Your task to perform on an android device: show emergency info Image 0: 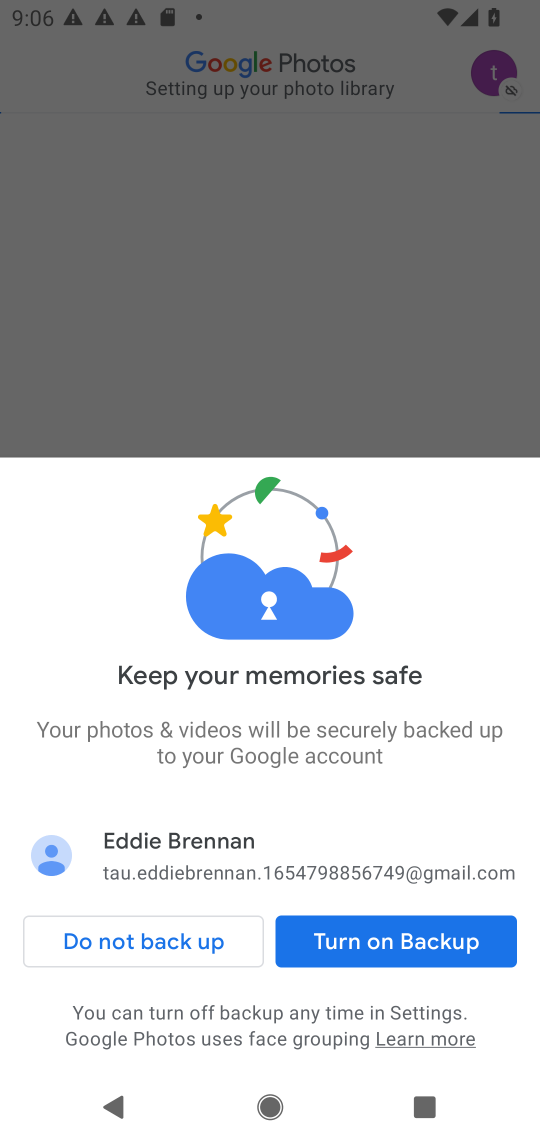
Step 0: press home button
Your task to perform on an android device: show emergency info Image 1: 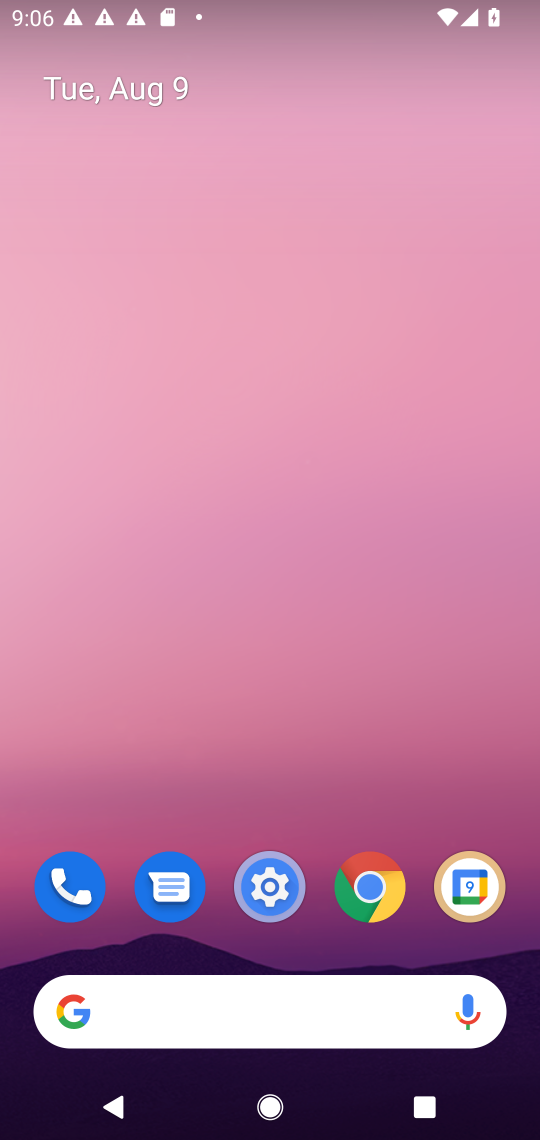
Step 1: click (253, 901)
Your task to perform on an android device: show emergency info Image 2: 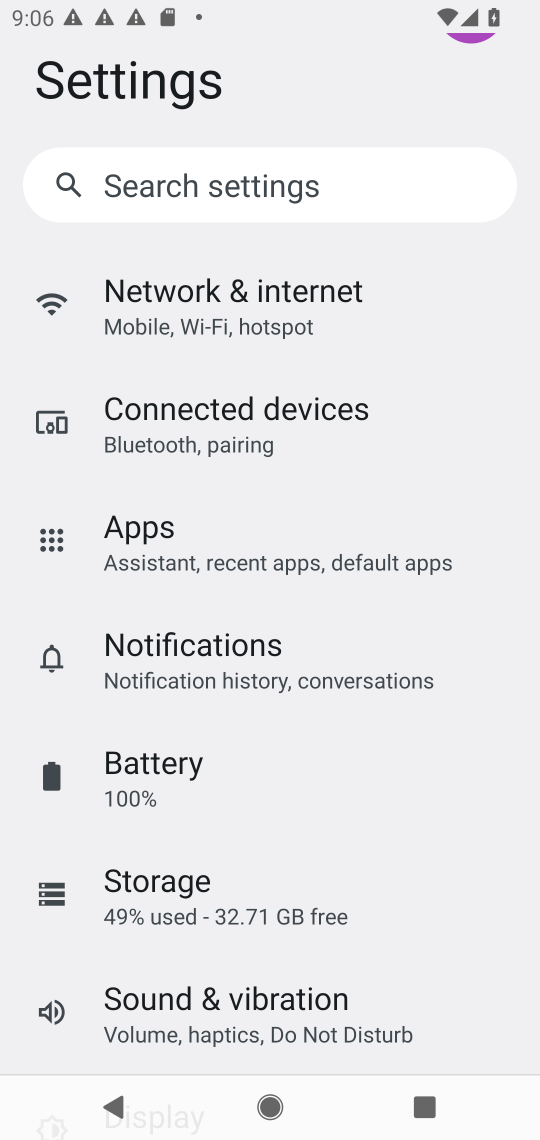
Step 2: drag from (238, 950) to (323, 385)
Your task to perform on an android device: show emergency info Image 3: 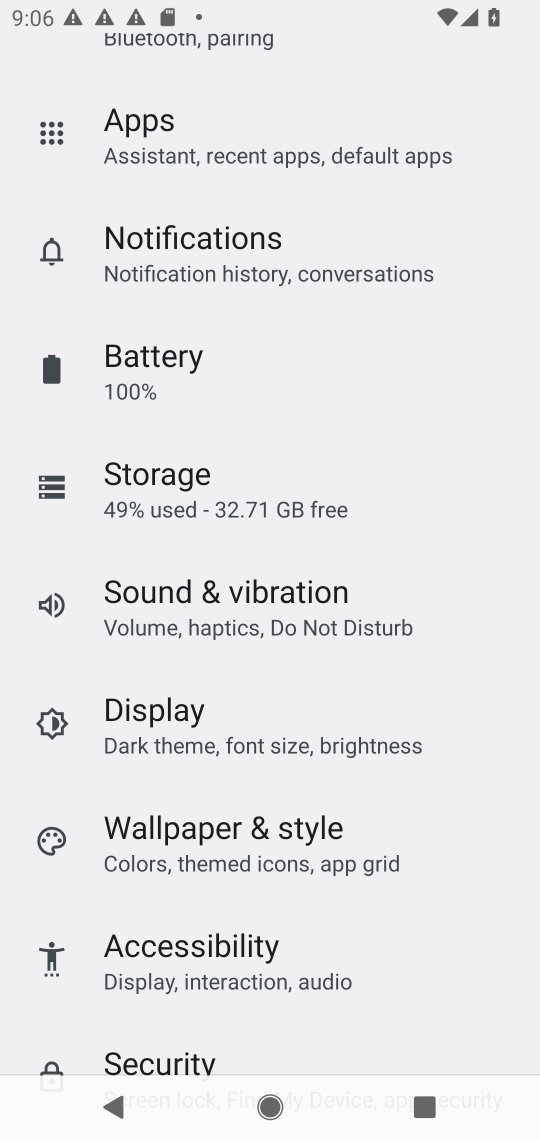
Step 3: drag from (171, 941) to (327, 372)
Your task to perform on an android device: show emergency info Image 4: 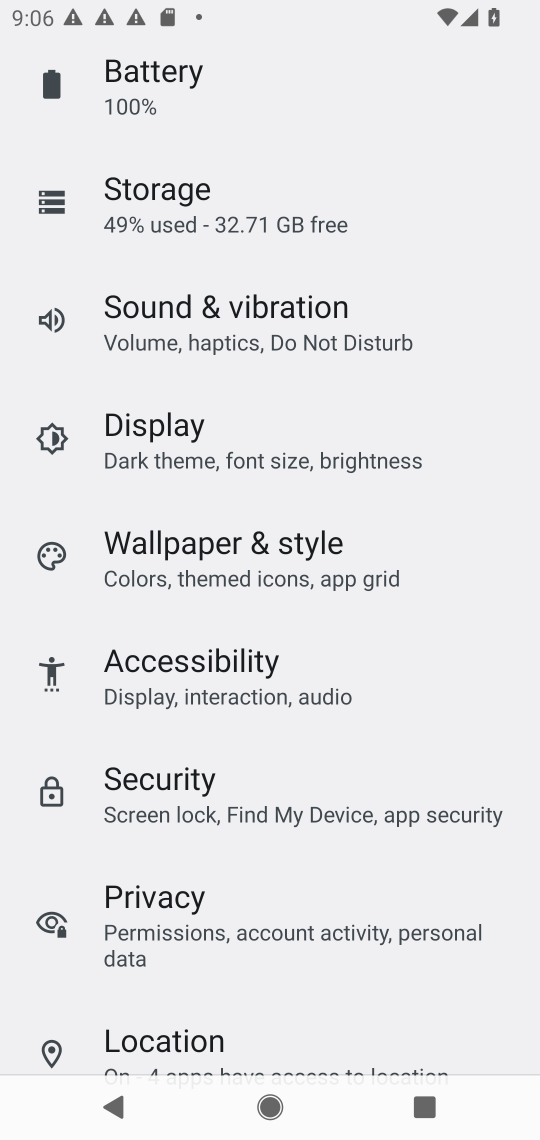
Step 4: drag from (284, 765) to (352, 265)
Your task to perform on an android device: show emergency info Image 5: 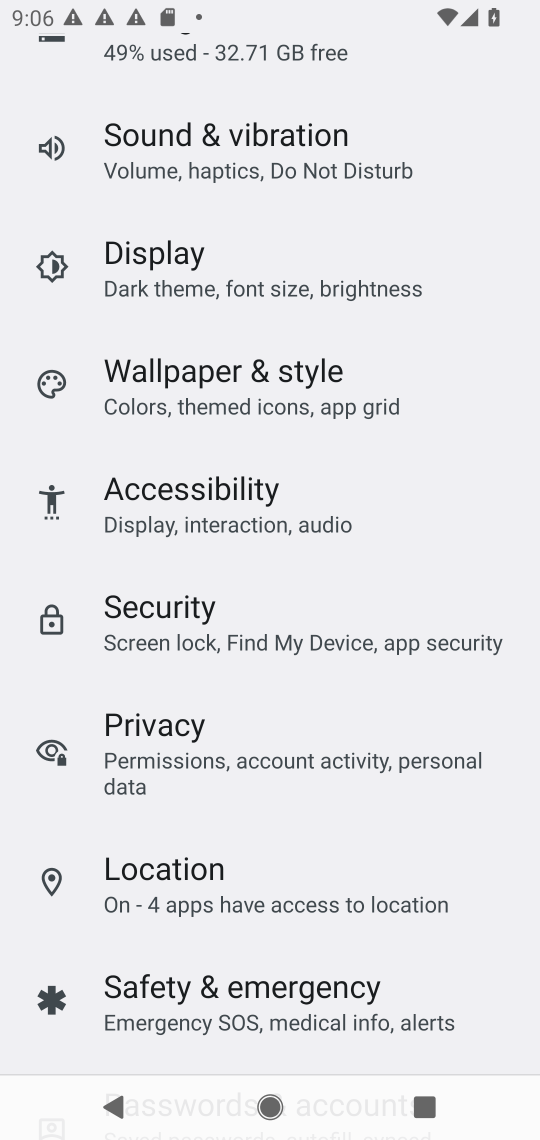
Step 5: drag from (323, 824) to (353, 295)
Your task to perform on an android device: show emergency info Image 6: 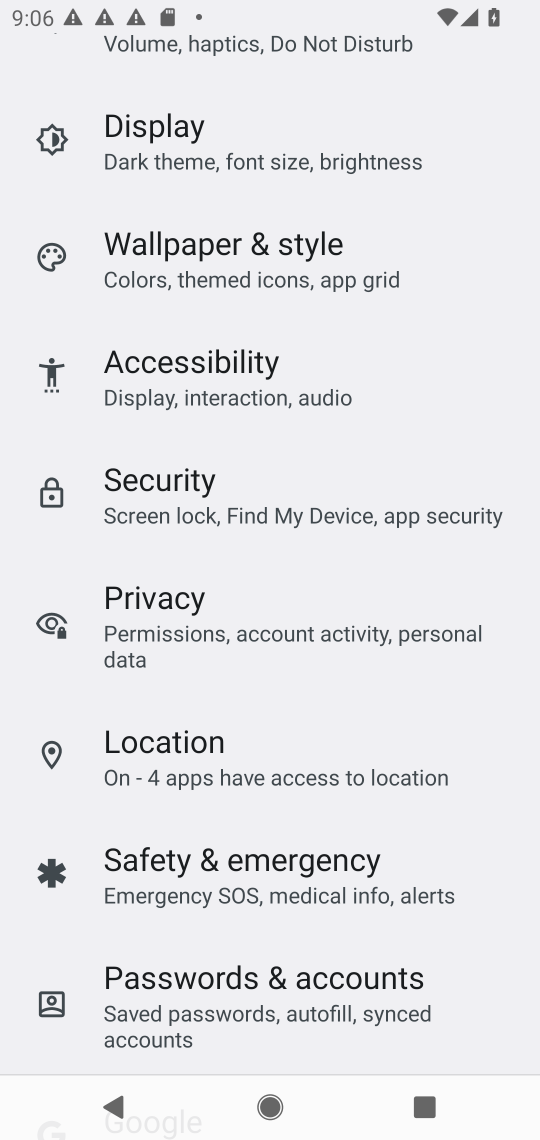
Step 6: drag from (265, 907) to (303, 361)
Your task to perform on an android device: show emergency info Image 7: 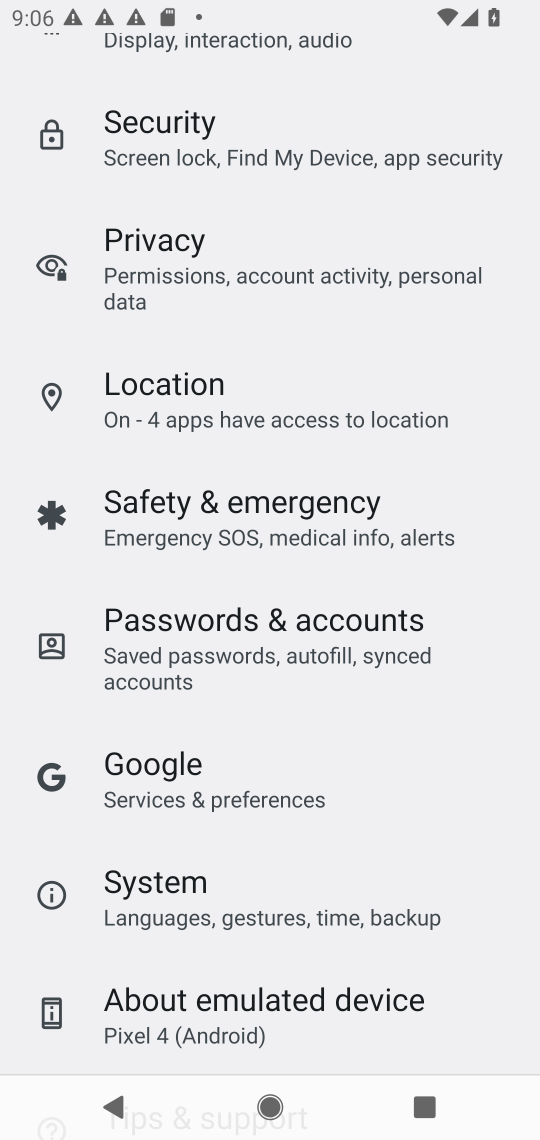
Step 7: click (270, 887)
Your task to perform on an android device: show emergency info Image 8: 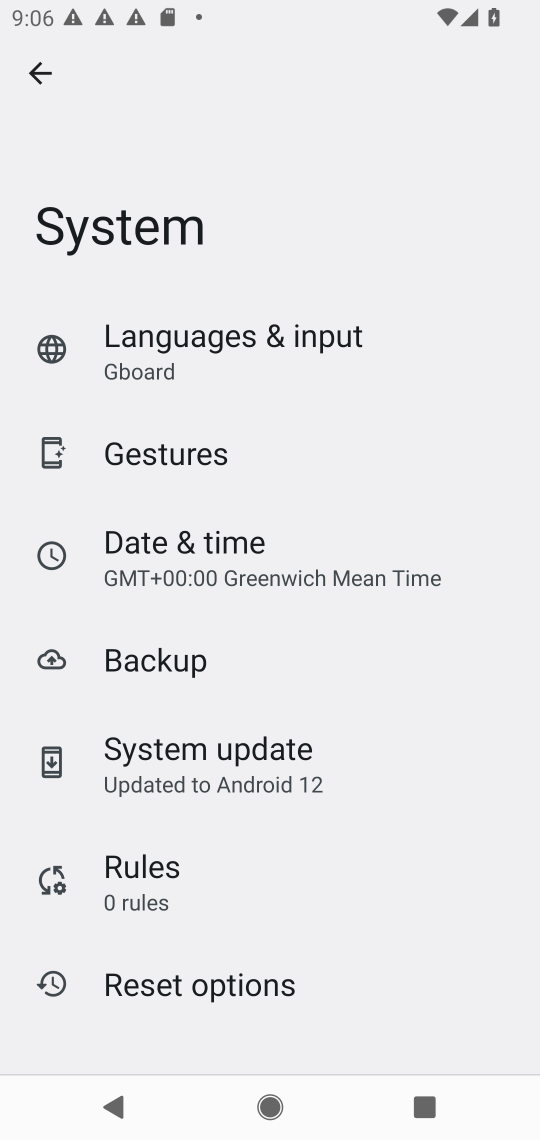
Step 8: drag from (226, 880) to (279, 239)
Your task to perform on an android device: show emergency info Image 9: 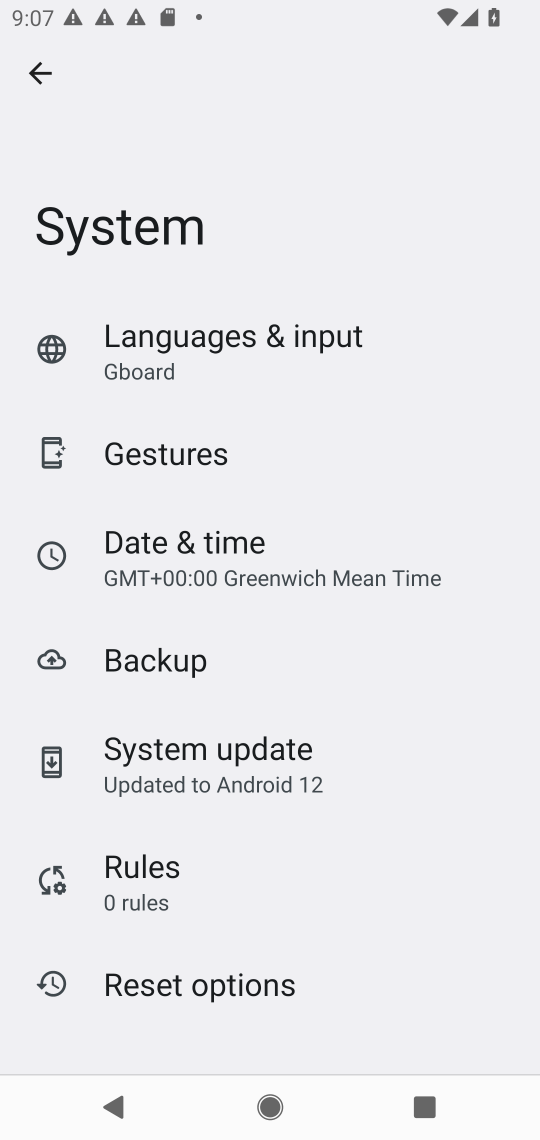
Step 9: click (42, 69)
Your task to perform on an android device: show emergency info Image 10: 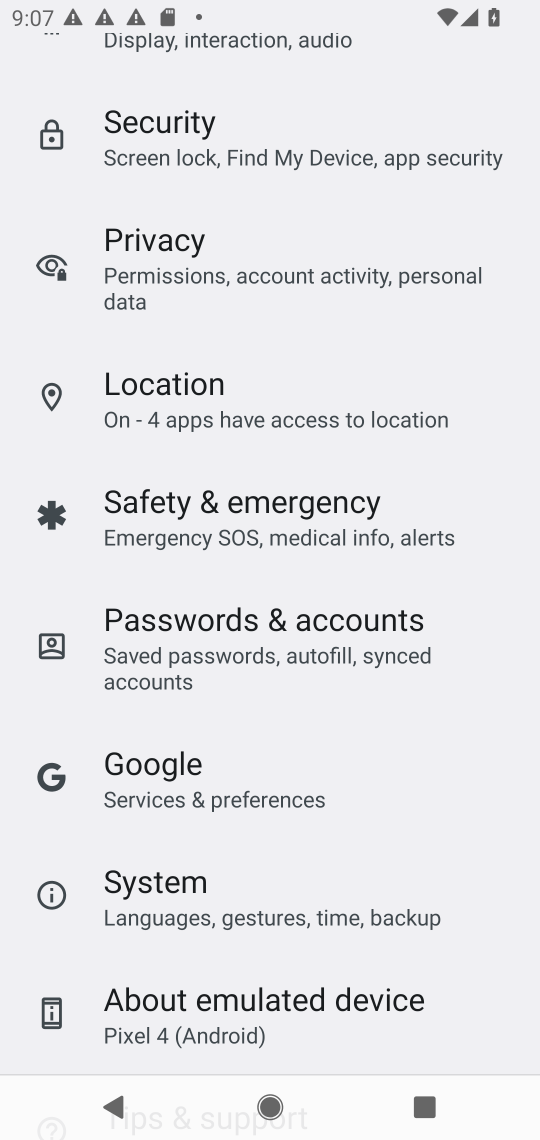
Step 10: click (285, 1010)
Your task to perform on an android device: show emergency info Image 11: 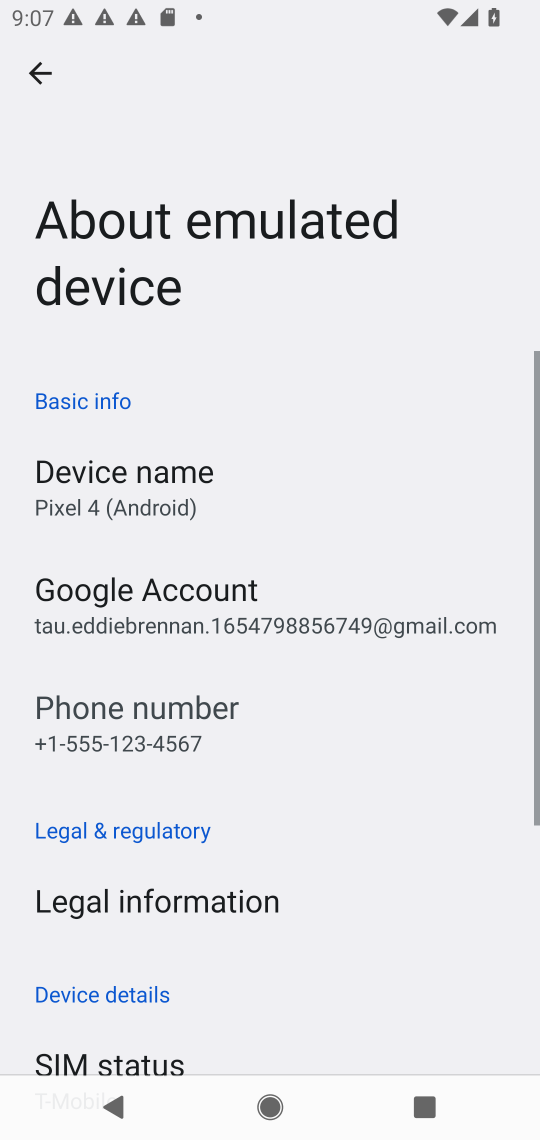
Step 11: task complete